Your task to perform on an android device: Clear the cart on amazon. Search for panasonic triple a on amazon, select the first entry, add it to the cart, then select checkout. Image 0: 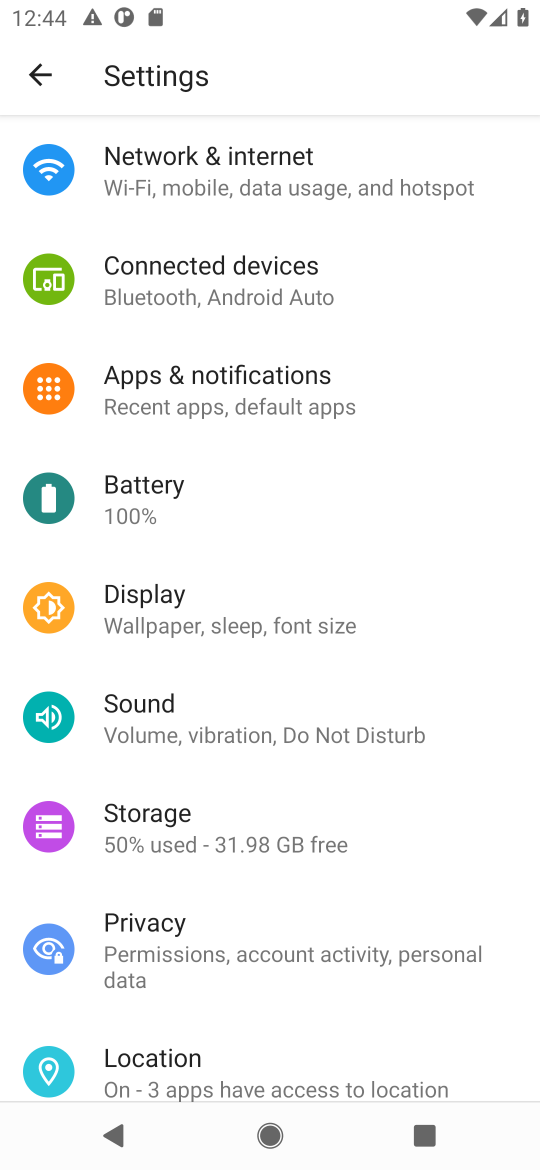
Step 0: press home button
Your task to perform on an android device: Clear the cart on amazon. Search for panasonic triple a on amazon, select the first entry, add it to the cart, then select checkout. Image 1: 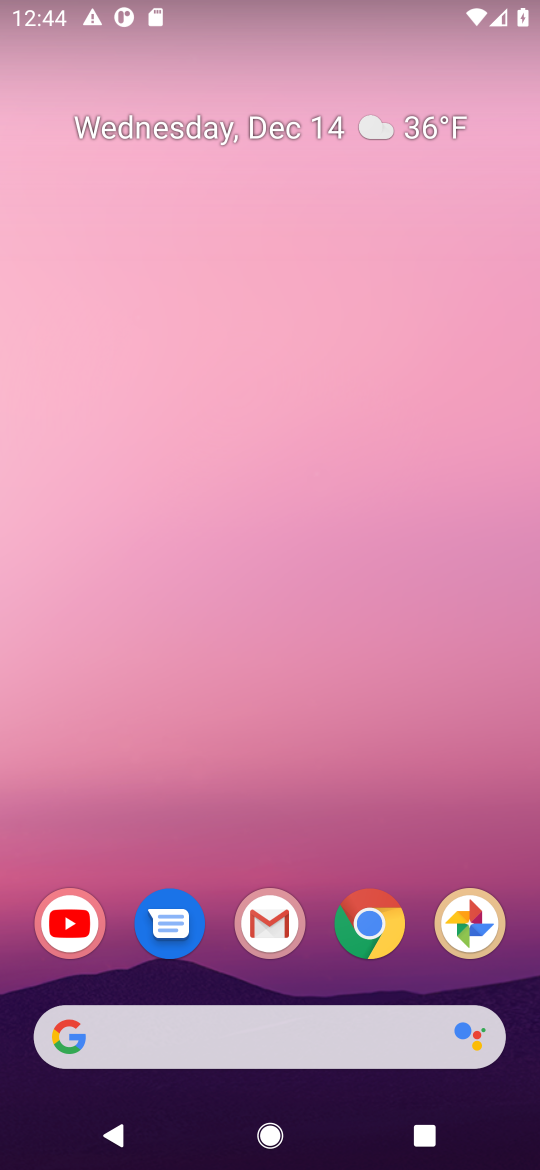
Step 1: click (391, 934)
Your task to perform on an android device: Clear the cart on amazon. Search for panasonic triple a on amazon, select the first entry, add it to the cart, then select checkout. Image 2: 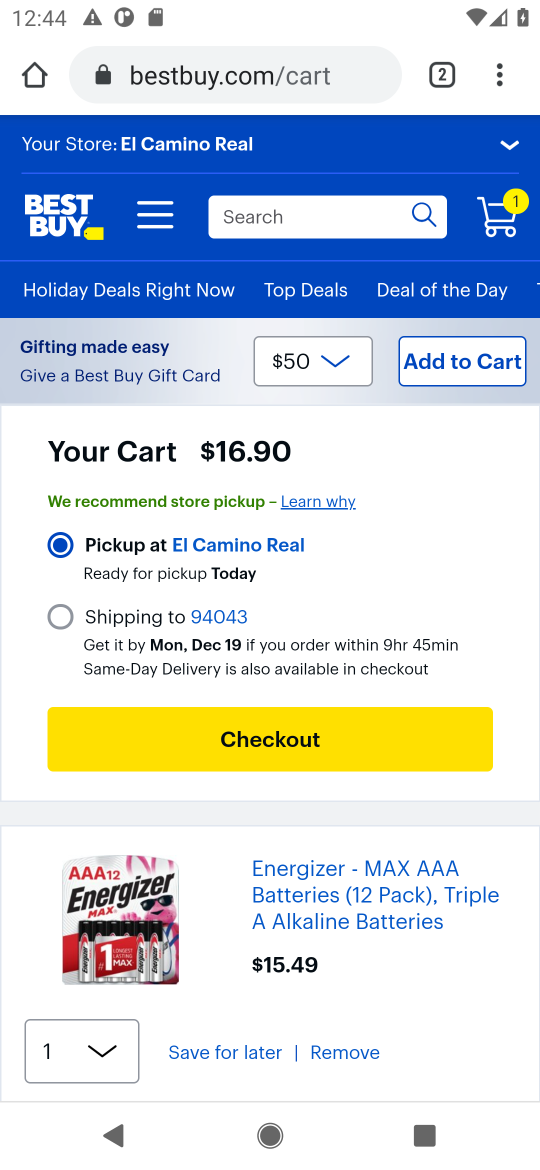
Step 2: click (201, 85)
Your task to perform on an android device: Clear the cart on amazon. Search for panasonic triple a on amazon, select the first entry, add it to the cart, then select checkout. Image 3: 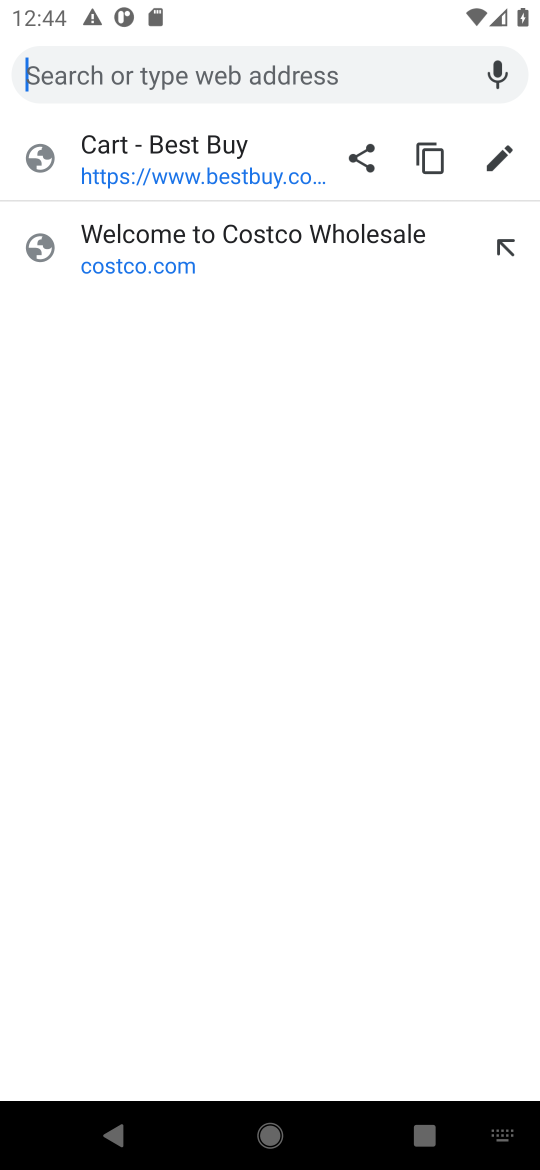
Step 3: type "amazon"
Your task to perform on an android device: Clear the cart on amazon. Search for panasonic triple a on amazon, select the first entry, add it to the cart, then select checkout. Image 4: 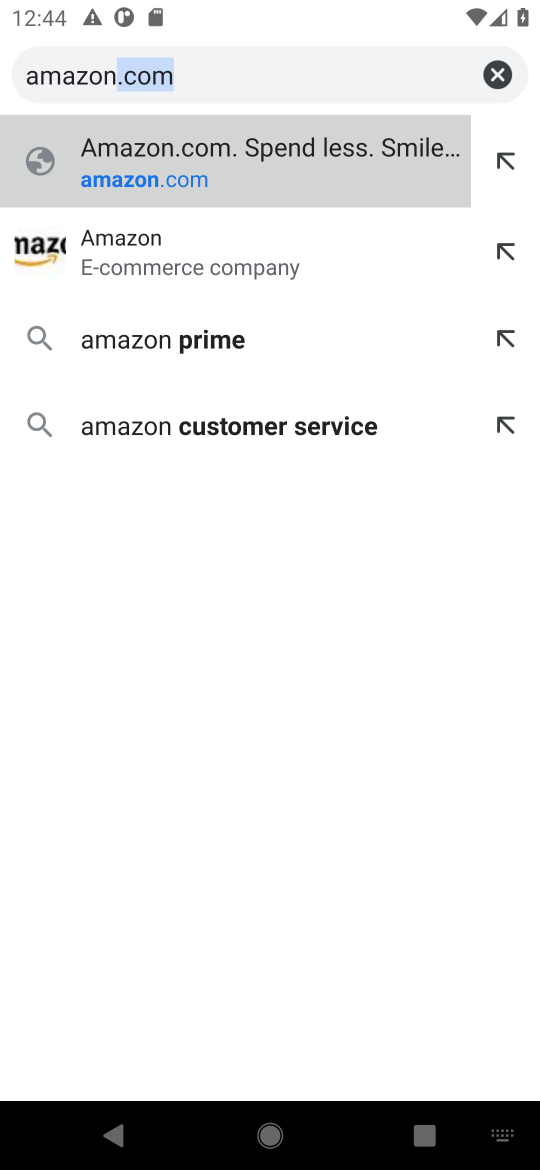
Step 4: click (248, 180)
Your task to perform on an android device: Clear the cart on amazon. Search for panasonic triple a on amazon, select the first entry, add it to the cart, then select checkout. Image 5: 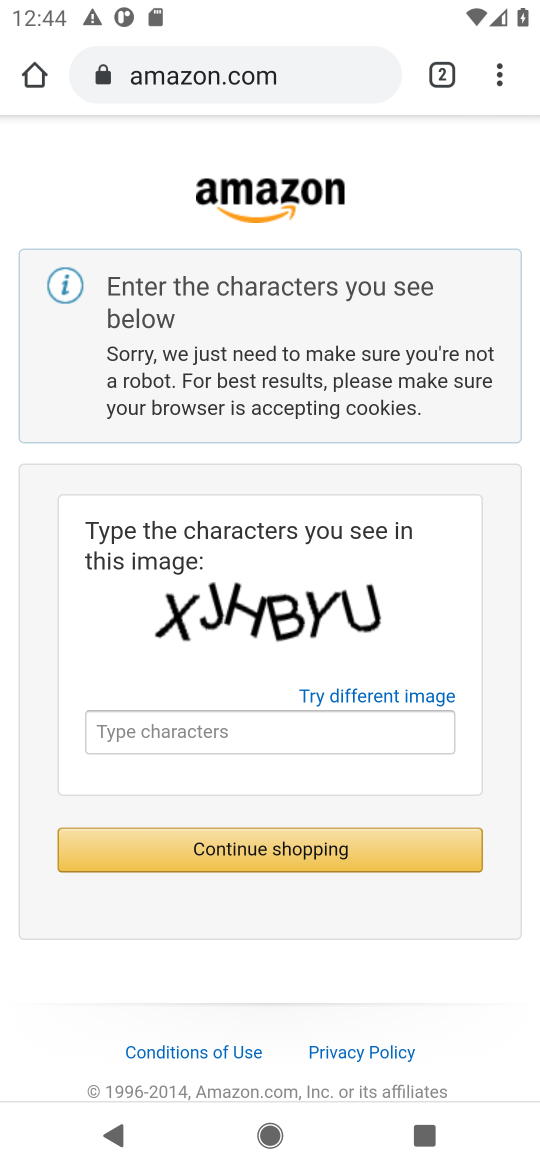
Step 5: click (257, 722)
Your task to perform on an android device: Clear the cart on amazon. Search for panasonic triple a on amazon, select the first entry, add it to the cart, then select checkout. Image 6: 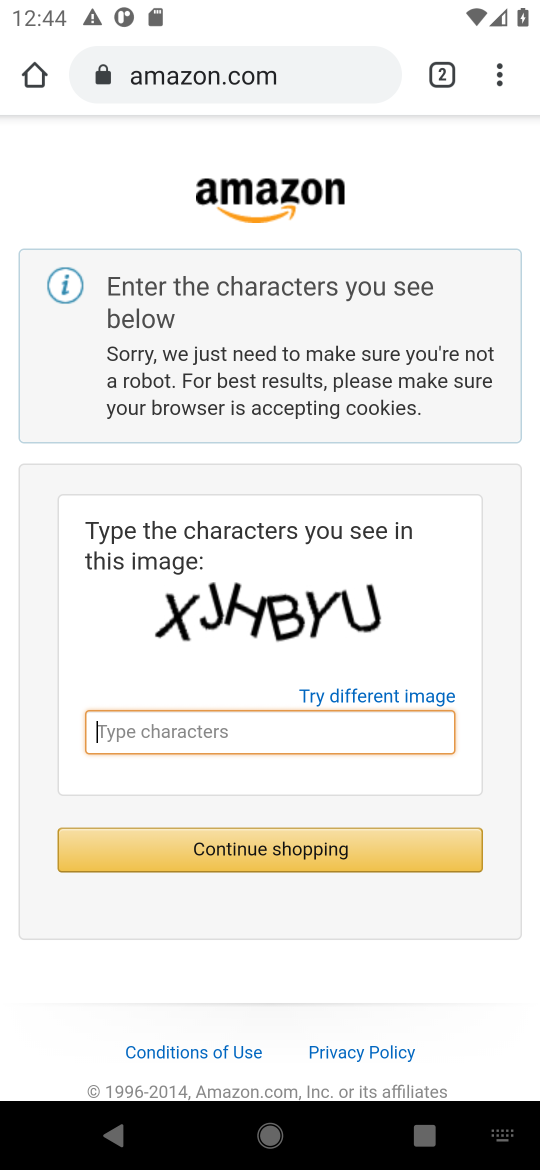
Step 6: type "XJHBYU"
Your task to perform on an android device: Clear the cart on amazon. Search for panasonic triple a on amazon, select the first entry, add it to the cart, then select checkout. Image 7: 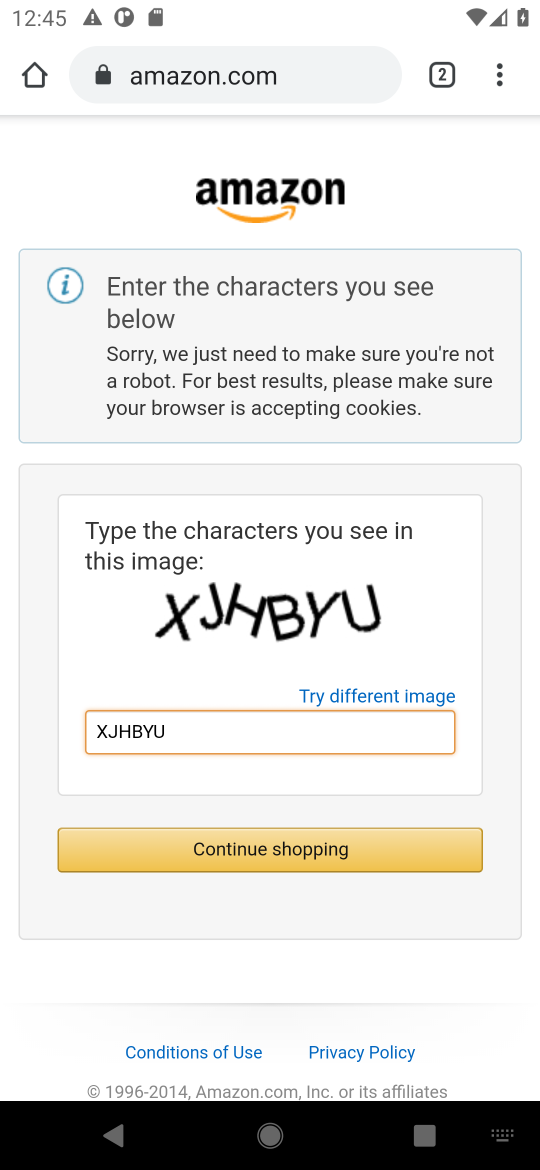
Step 7: click (337, 851)
Your task to perform on an android device: Clear the cart on amazon. Search for panasonic triple a on amazon, select the first entry, add it to the cart, then select checkout. Image 8: 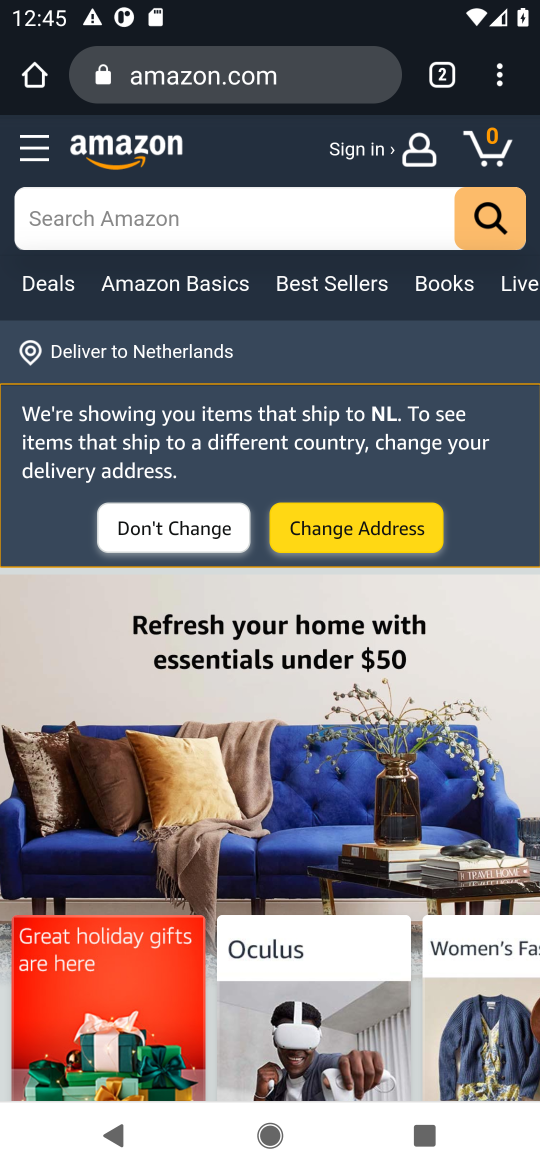
Step 8: click (147, 220)
Your task to perform on an android device: Clear the cart on amazon. Search for panasonic triple a on amazon, select the first entry, add it to the cart, then select checkout. Image 9: 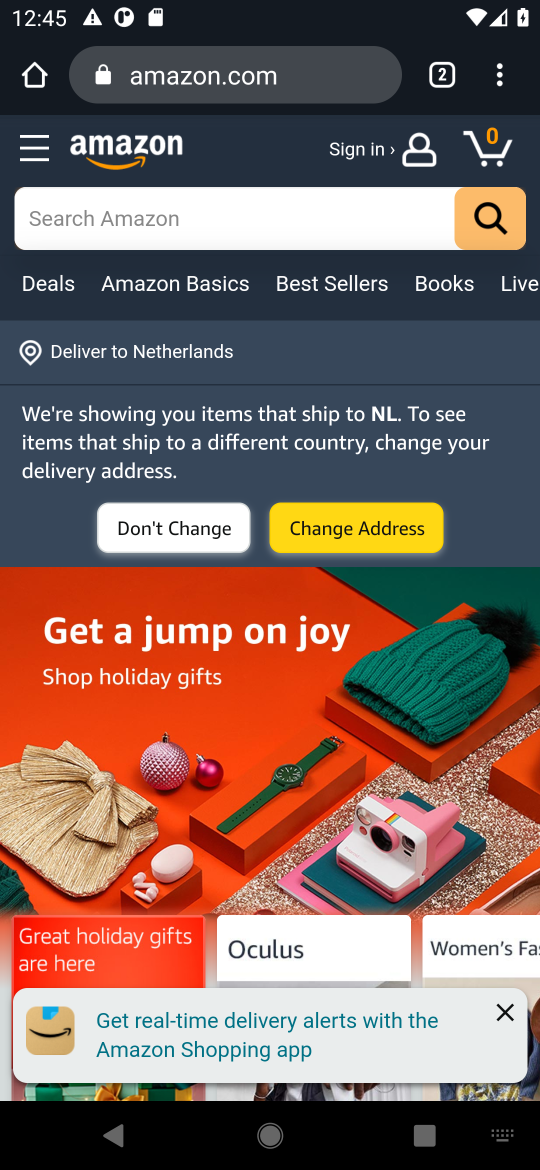
Step 9: type "panasonic triple a"
Your task to perform on an android device: Clear the cart on amazon. Search for panasonic triple a on amazon, select the first entry, add it to the cart, then select checkout. Image 10: 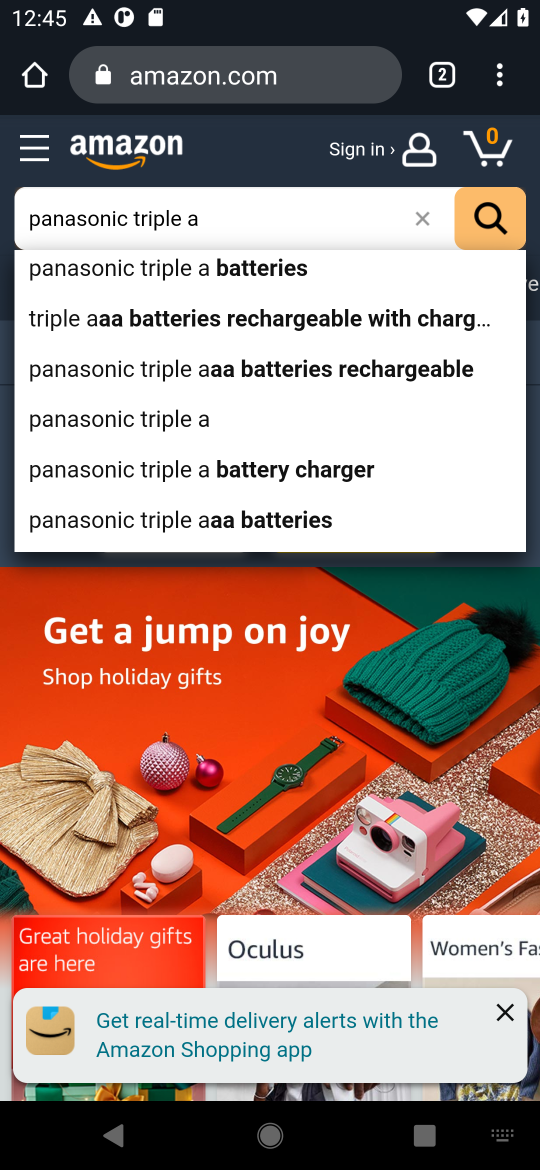
Step 10: click (405, 277)
Your task to perform on an android device: Clear the cart on amazon. Search for panasonic triple a on amazon, select the first entry, add it to the cart, then select checkout. Image 11: 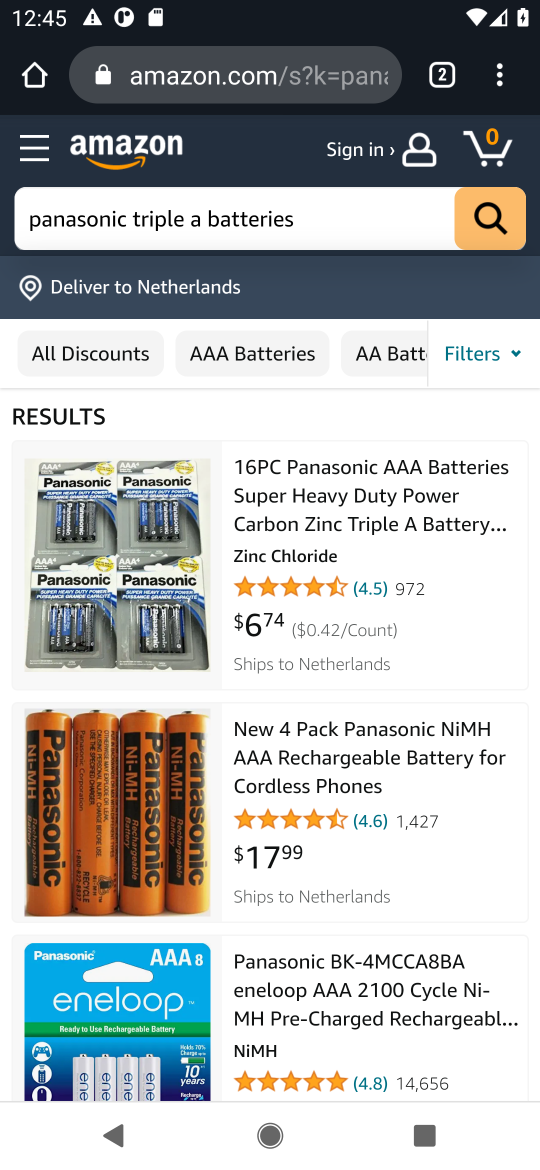
Step 11: click (389, 549)
Your task to perform on an android device: Clear the cart on amazon. Search for panasonic triple a on amazon, select the first entry, add it to the cart, then select checkout. Image 12: 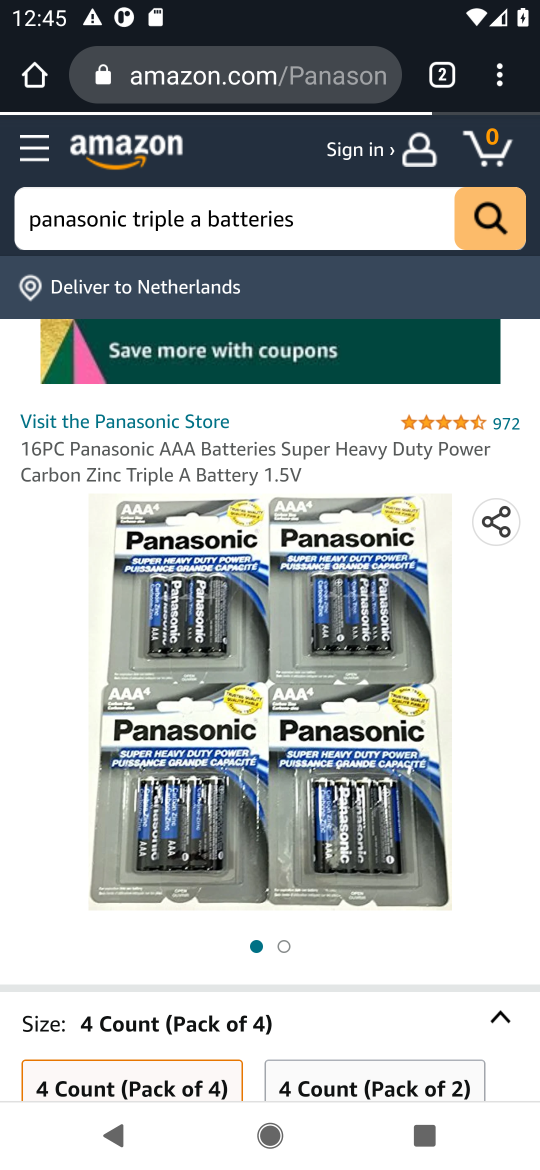
Step 12: drag from (391, 933) to (350, 464)
Your task to perform on an android device: Clear the cart on amazon. Search for panasonic triple a on amazon, select the first entry, add it to the cart, then select checkout. Image 13: 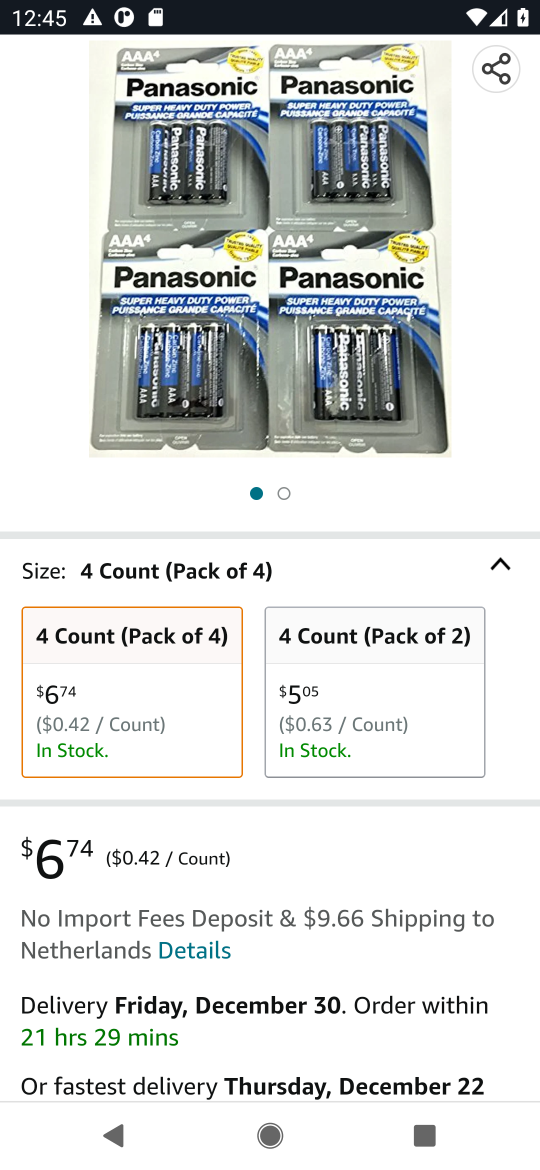
Step 13: drag from (370, 846) to (297, 392)
Your task to perform on an android device: Clear the cart on amazon. Search for panasonic triple a on amazon, select the first entry, add it to the cart, then select checkout. Image 14: 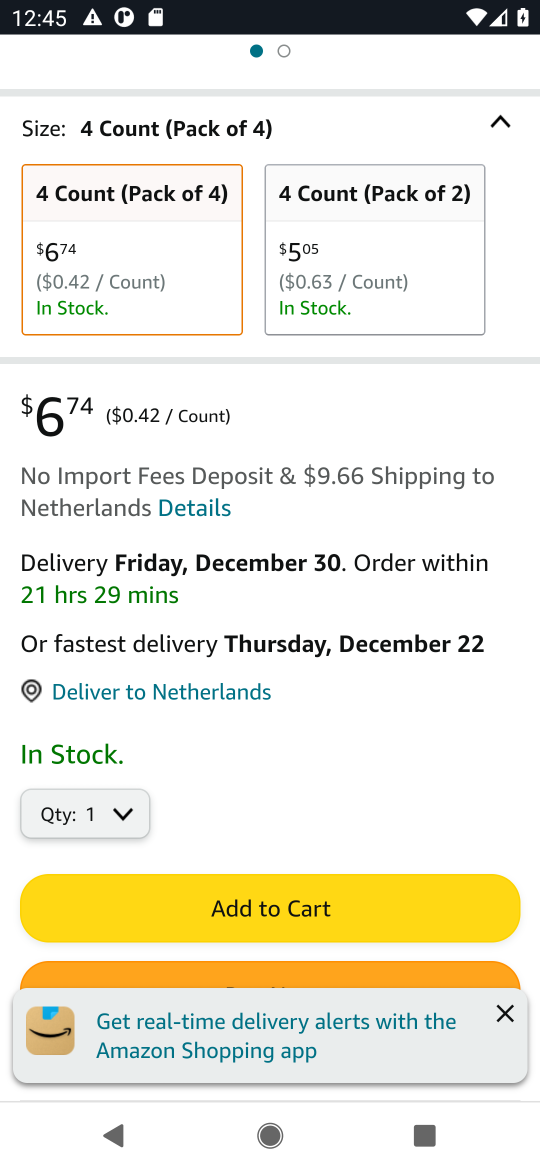
Step 14: click (349, 903)
Your task to perform on an android device: Clear the cart on amazon. Search for panasonic triple a on amazon, select the first entry, add it to the cart, then select checkout. Image 15: 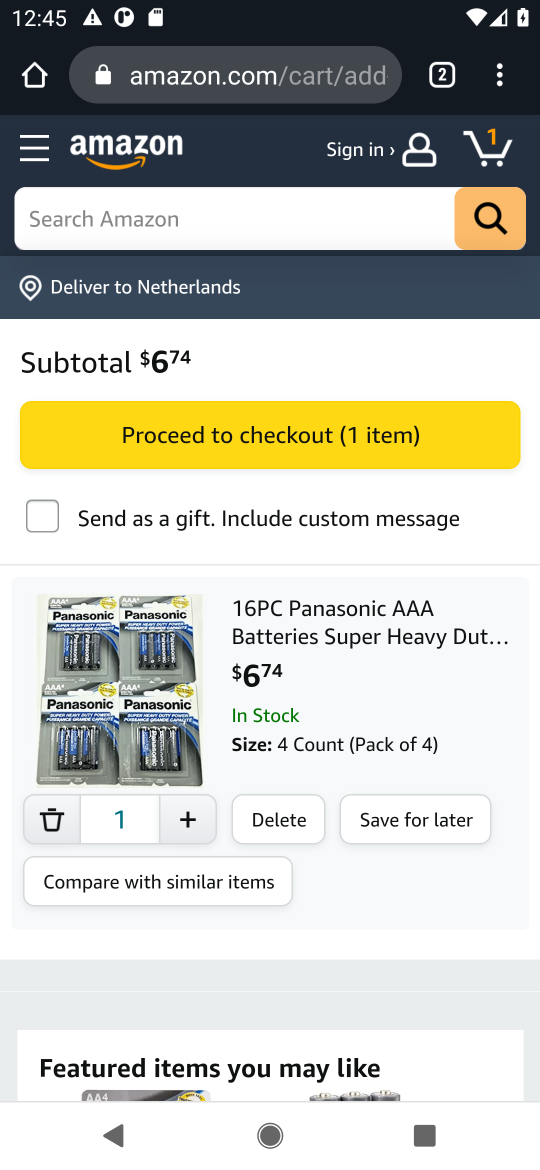
Step 15: task complete